Your task to perform on an android device: change timer sound Image 0: 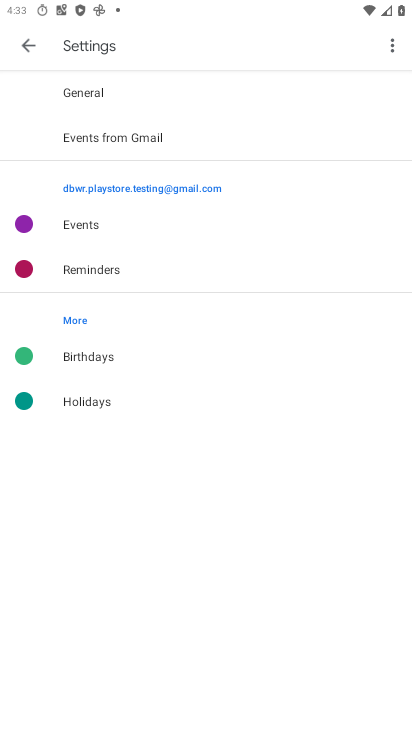
Step 0: press home button
Your task to perform on an android device: change timer sound Image 1: 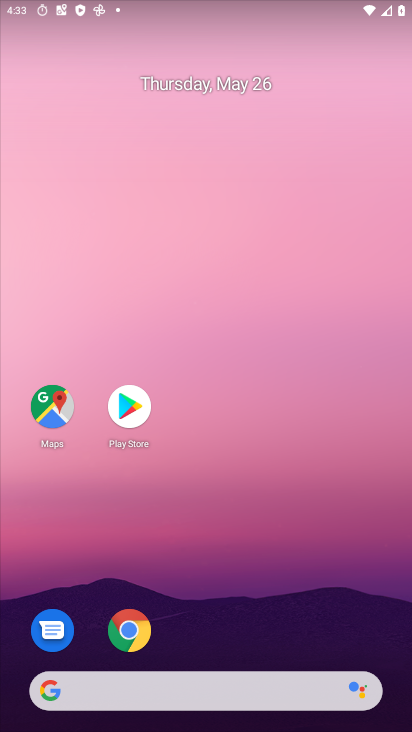
Step 1: drag from (244, 637) to (263, 179)
Your task to perform on an android device: change timer sound Image 2: 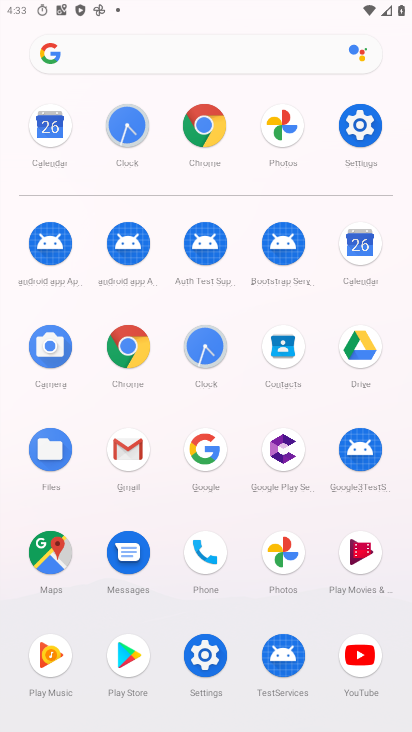
Step 2: click (203, 351)
Your task to perform on an android device: change timer sound Image 3: 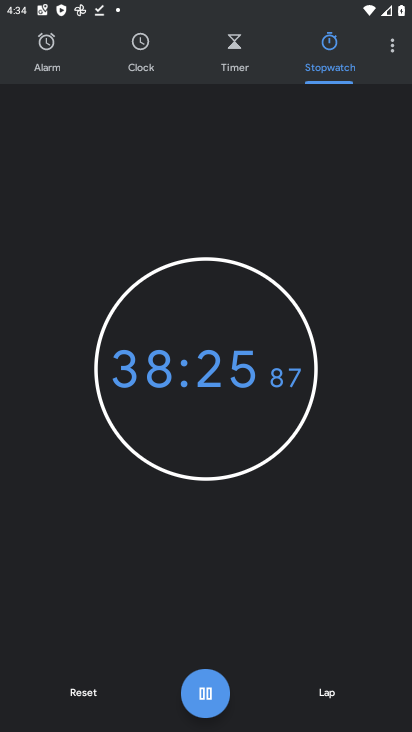
Step 3: click (391, 44)
Your task to perform on an android device: change timer sound Image 4: 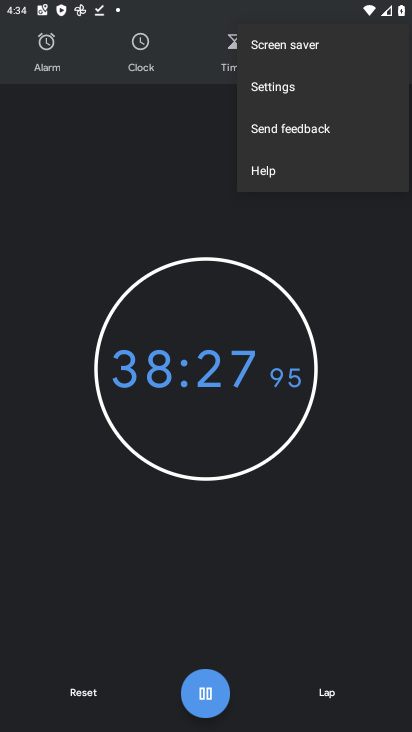
Step 4: click (294, 86)
Your task to perform on an android device: change timer sound Image 5: 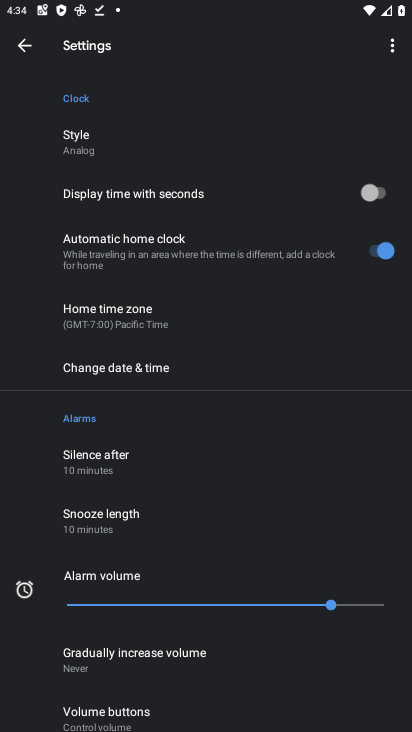
Step 5: drag from (229, 528) to (240, 309)
Your task to perform on an android device: change timer sound Image 6: 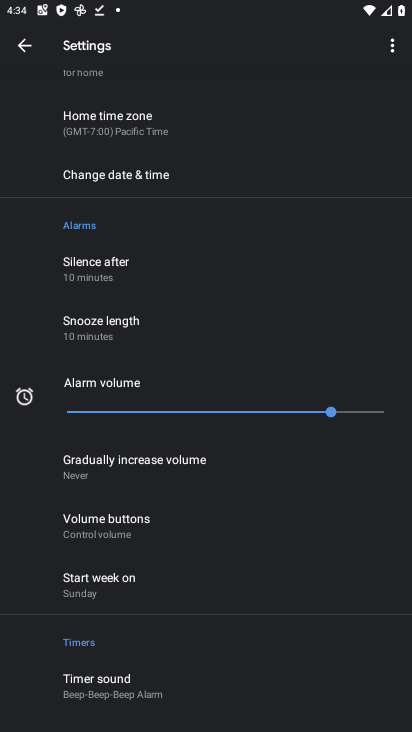
Step 6: drag from (257, 666) to (264, 111)
Your task to perform on an android device: change timer sound Image 7: 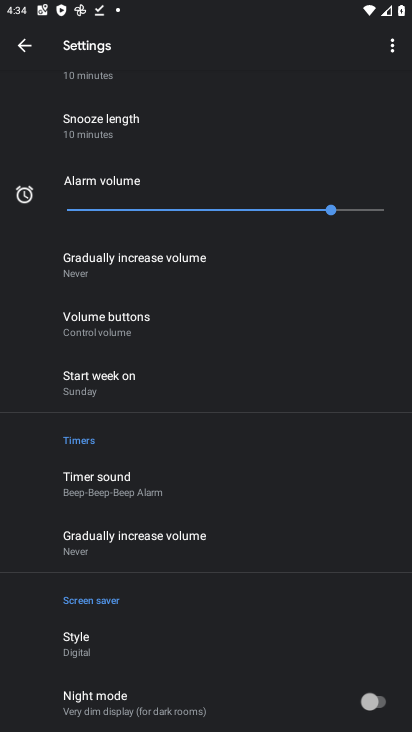
Step 7: click (151, 489)
Your task to perform on an android device: change timer sound Image 8: 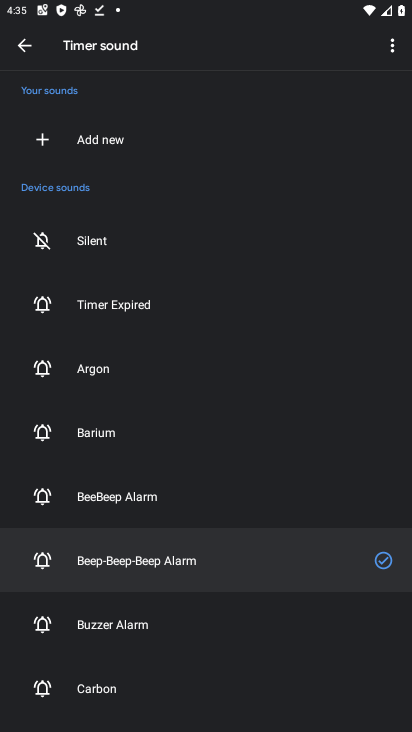
Step 8: click (126, 504)
Your task to perform on an android device: change timer sound Image 9: 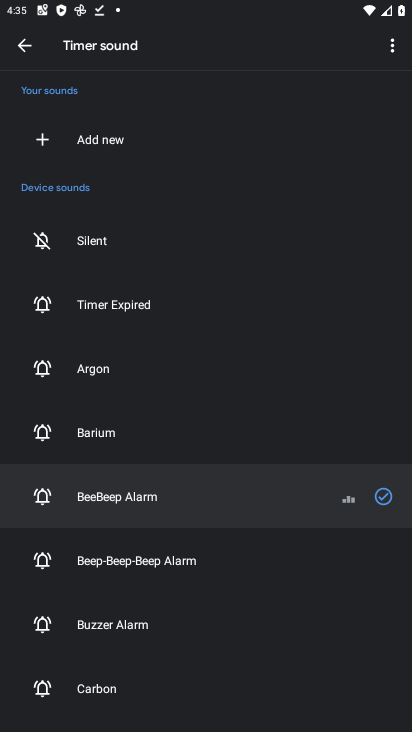
Step 9: task complete